Your task to perform on an android device: open app "eBay: The shopping marketplace" Image 0: 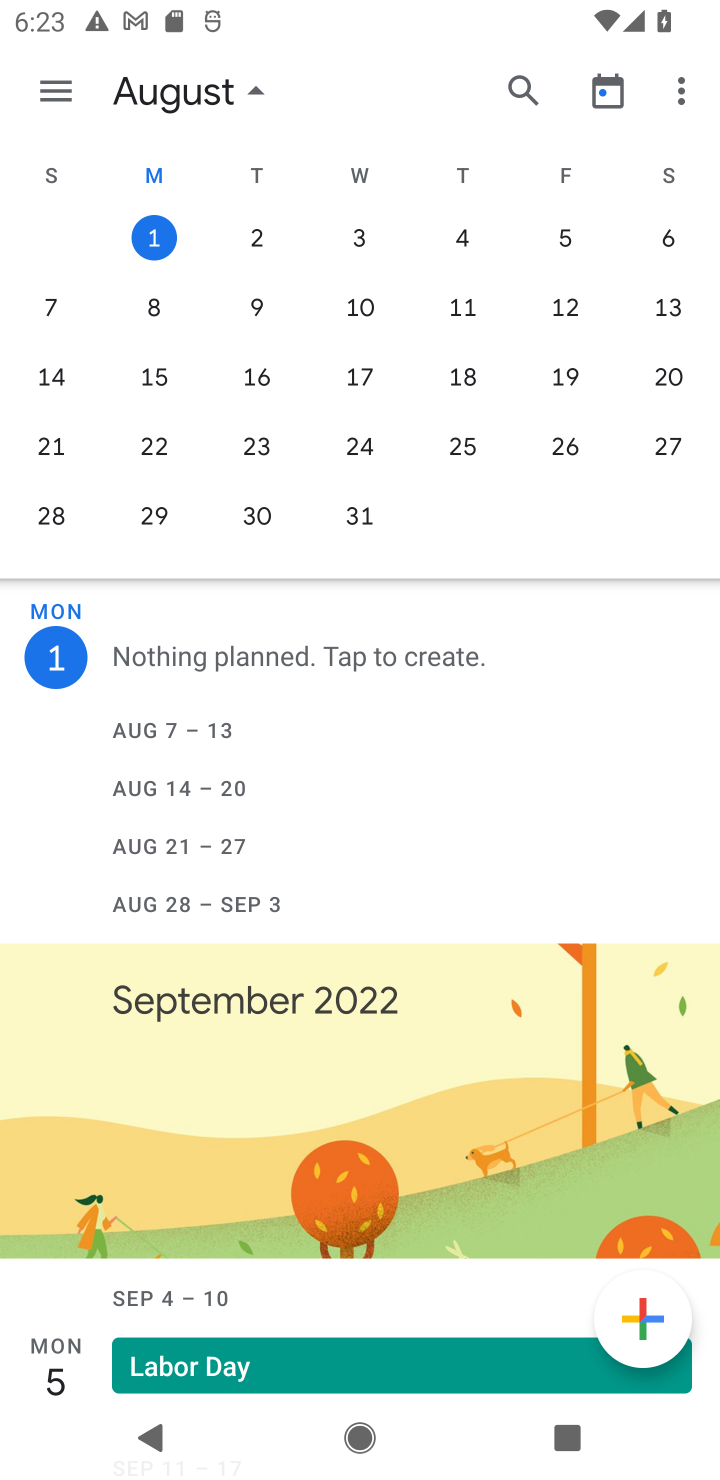
Step 0: press home button
Your task to perform on an android device: open app "eBay: The shopping marketplace" Image 1: 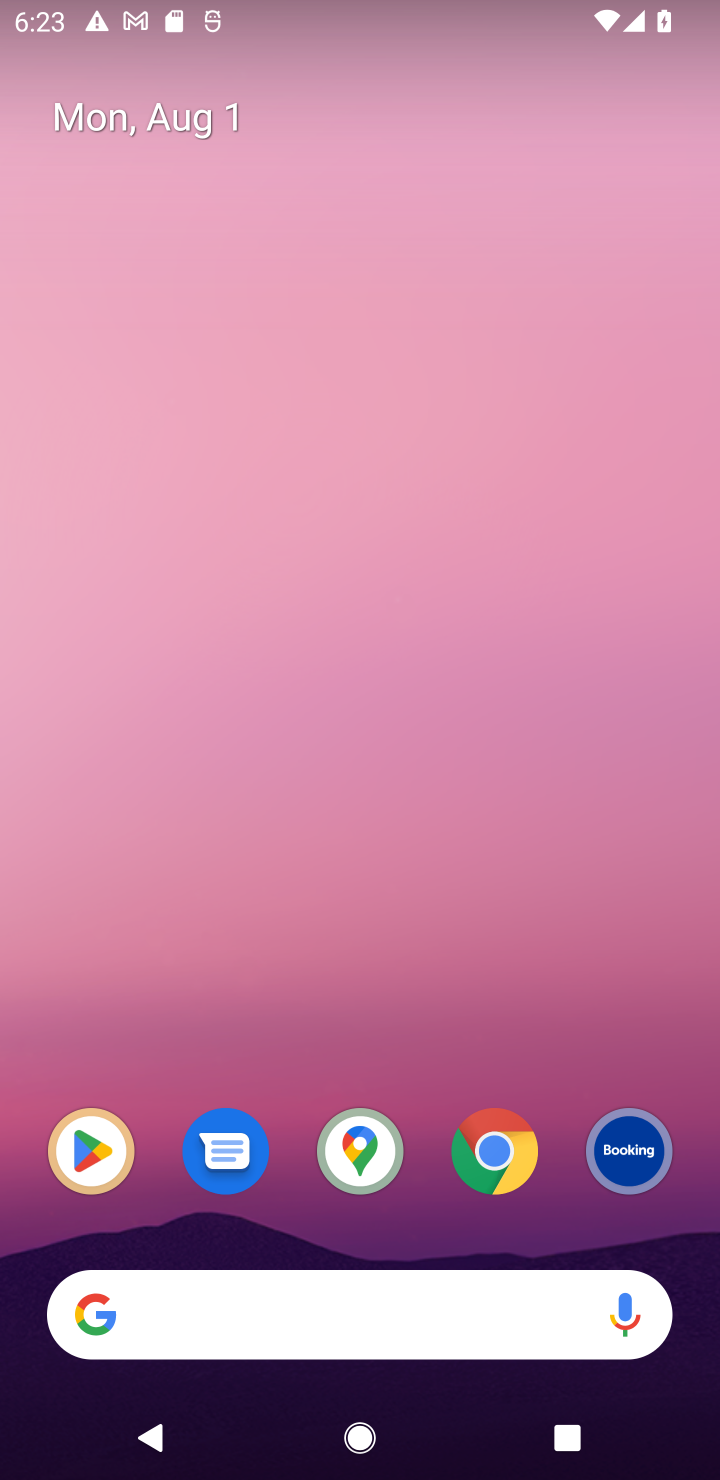
Step 1: drag from (348, 1301) to (366, 1162)
Your task to perform on an android device: open app "eBay: The shopping marketplace" Image 2: 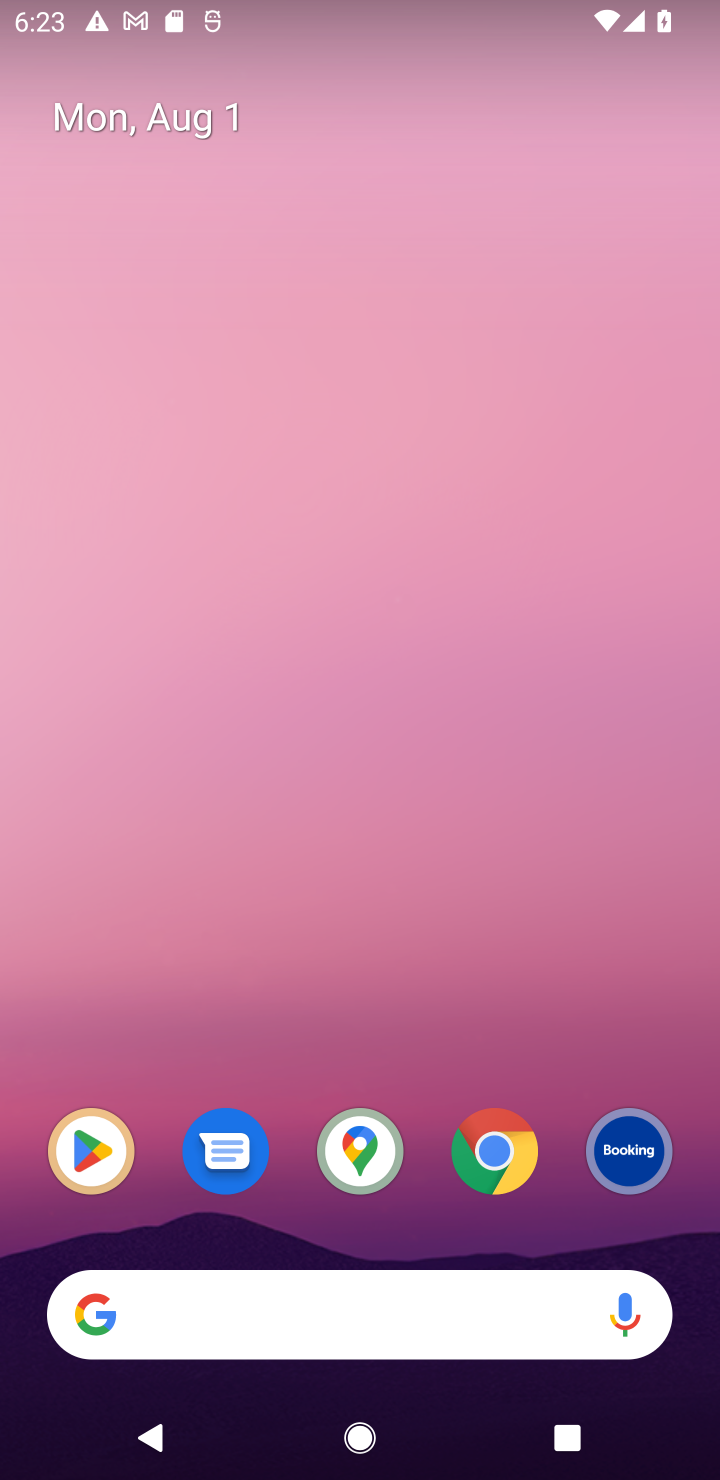
Step 2: drag from (300, 1268) to (632, 66)
Your task to perform on an android device: open app "eBay: The shopping marketplace" Image 3: 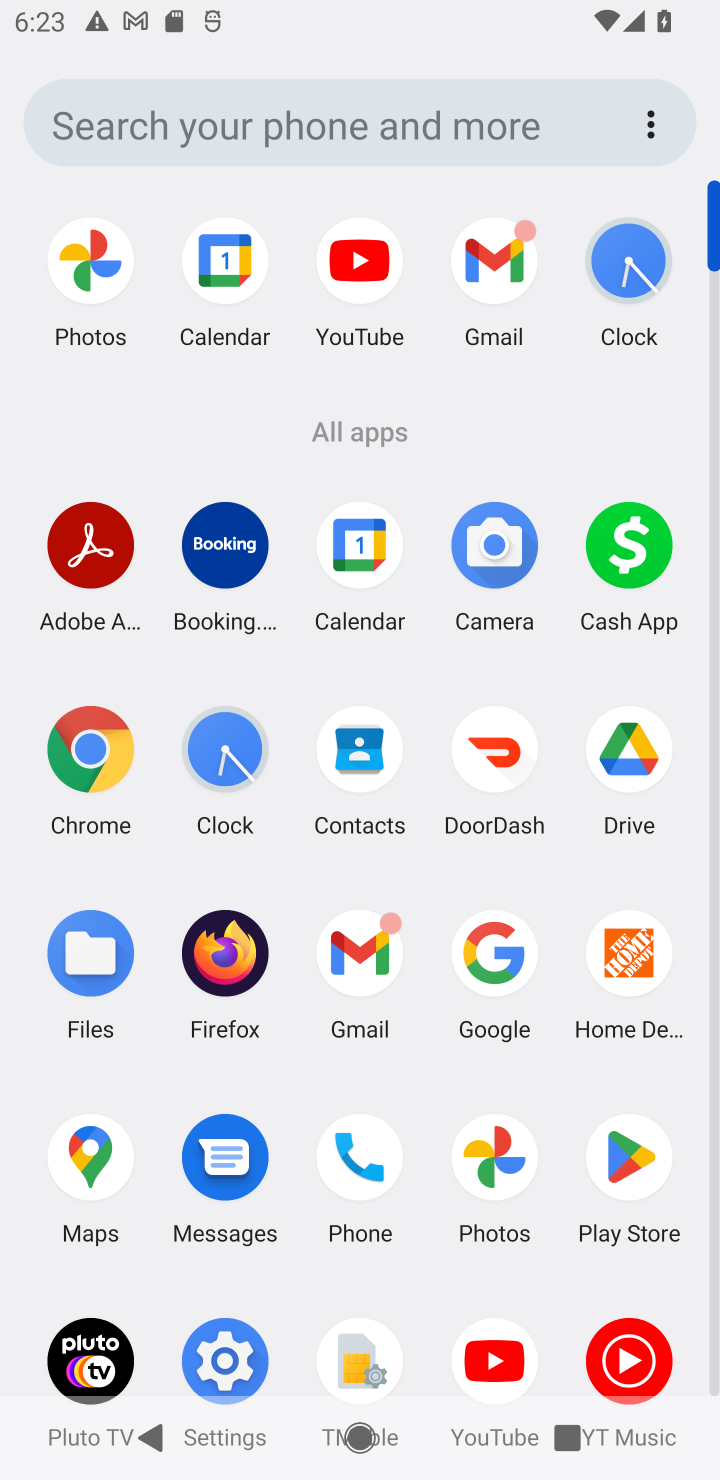
Step 3: click (638, 1141)
Your task to perform on an android device: open app "eBay: The shopping marketplace" Image 4: 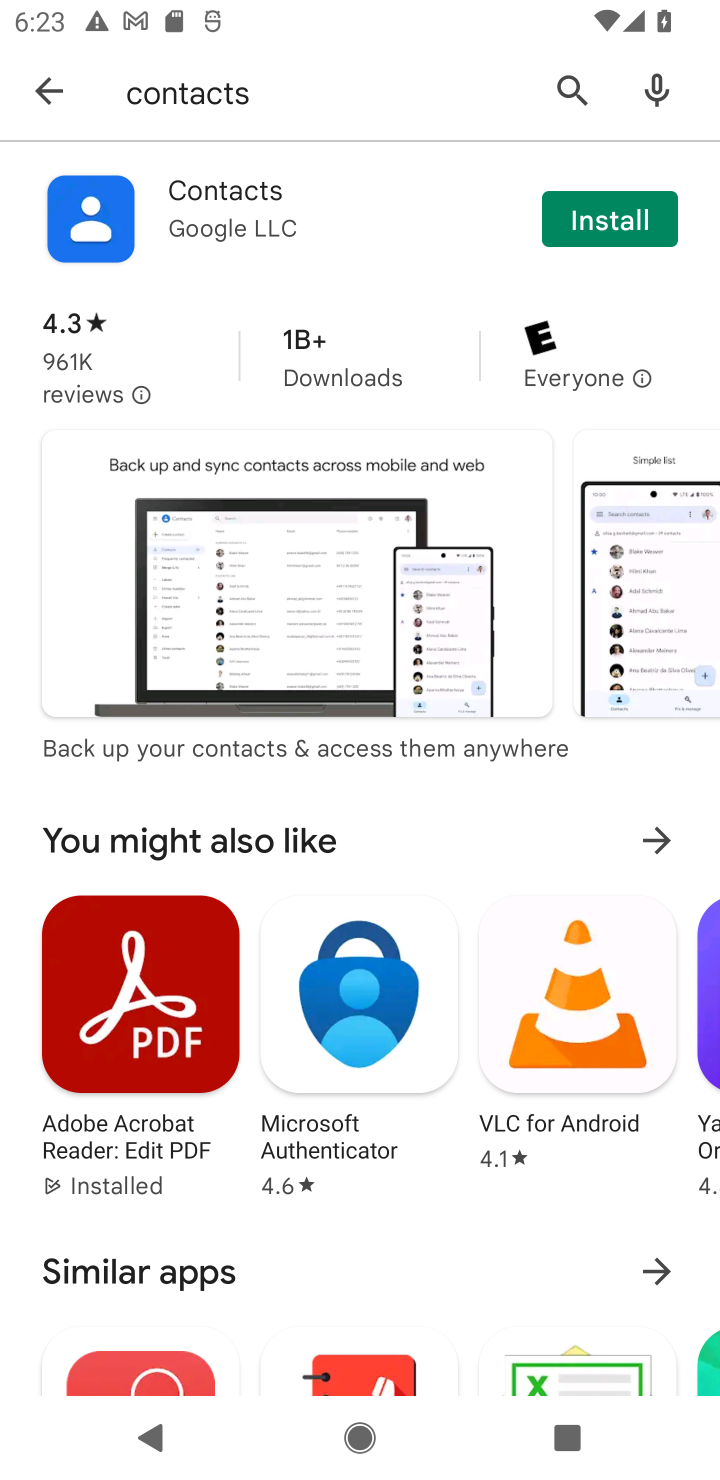
Step 4: click (554, 74)
Your task to perform on an android device: open app "eBay: The shopping marketplace" Image 5: 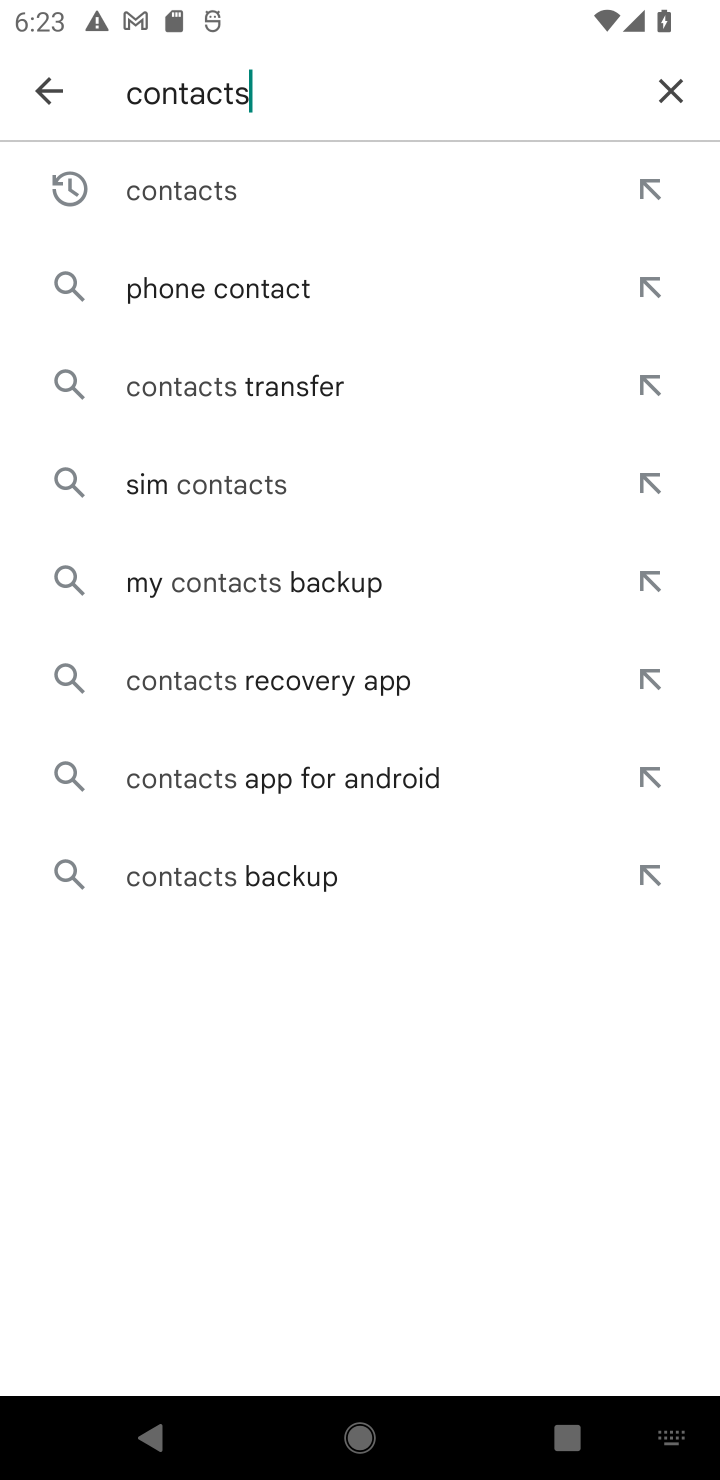
Step 5: click (661, 85)
Your task to perform on an android device: open app "eBay: The shopping marketplace" Image 6: 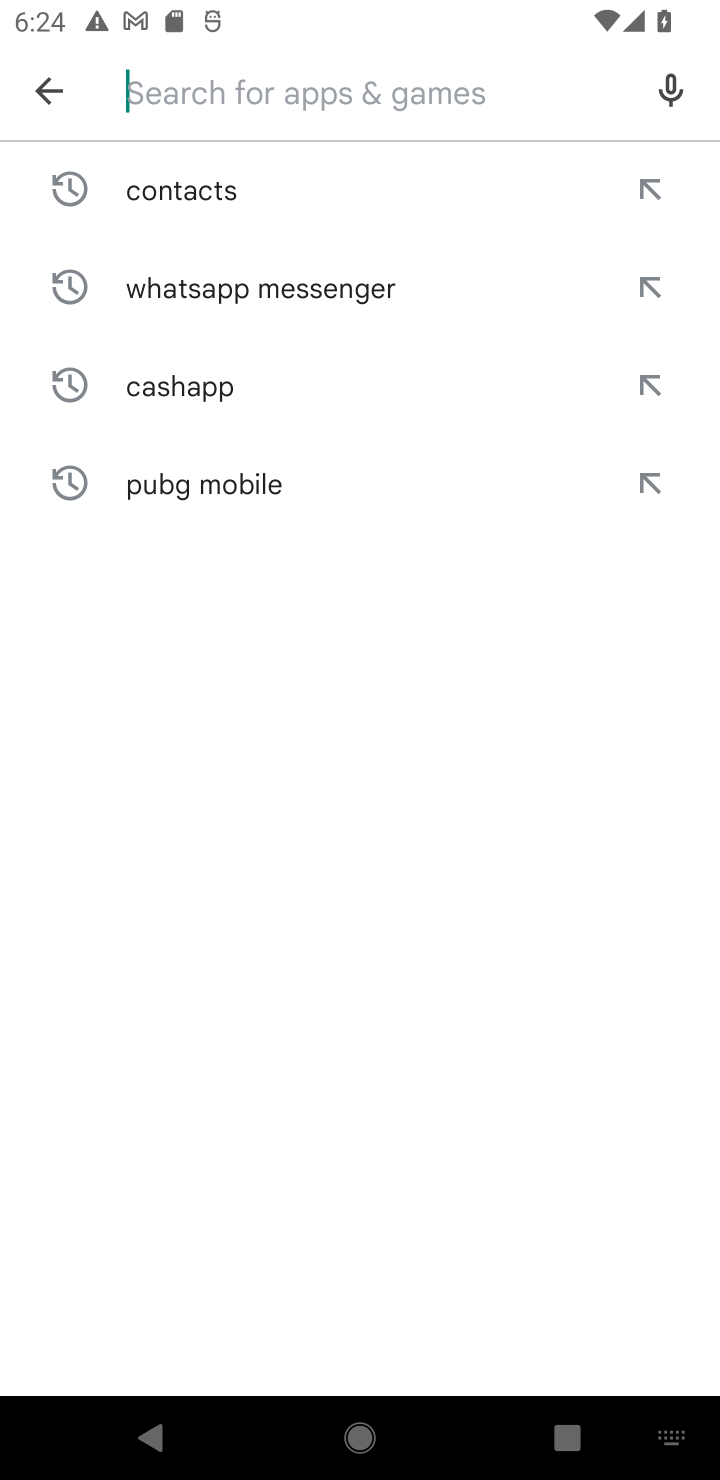
Step 6: type "ebay"
Your task to perform on an android device: open app "eBay: The shopping marketplace" Image 7: 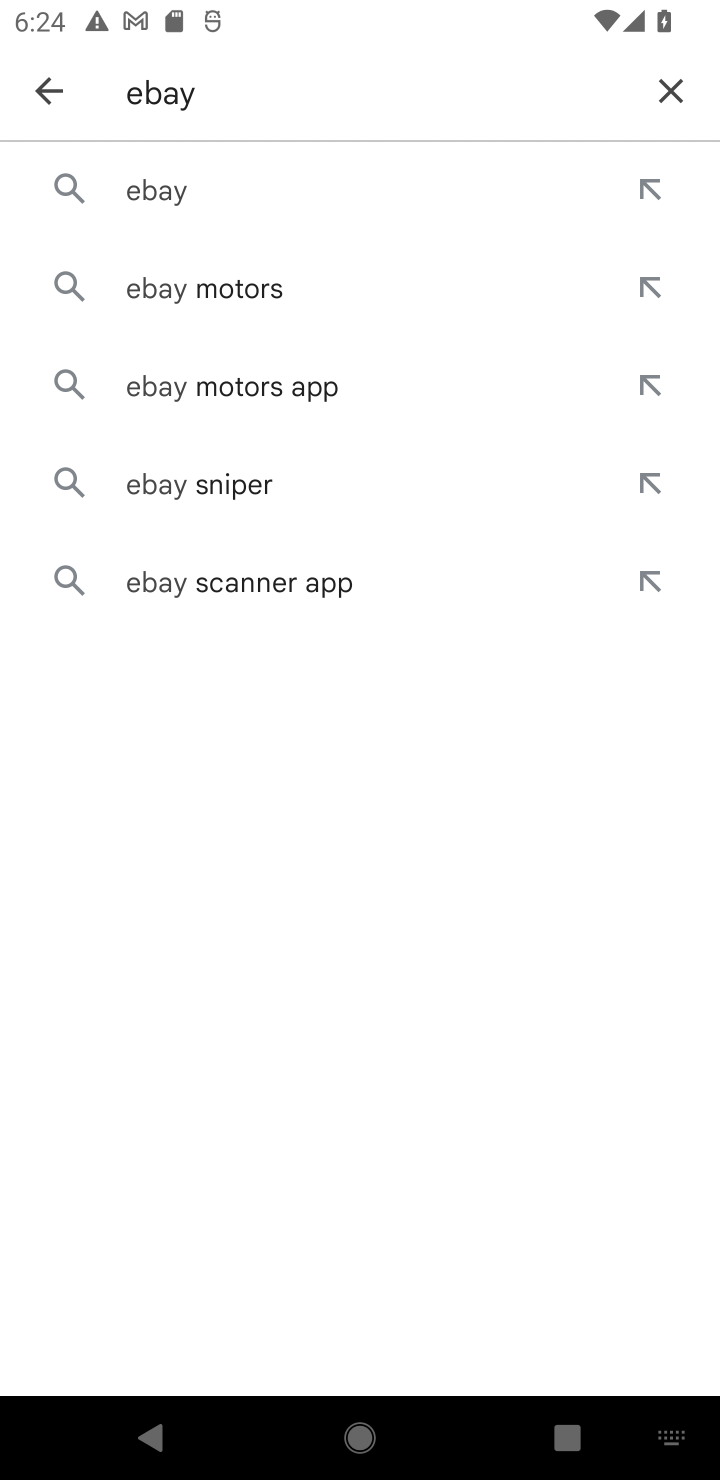
Step 7: click (104, 209)
Your task to perform on an android device: open app "eBay: The shopping marketplace" Image 8: 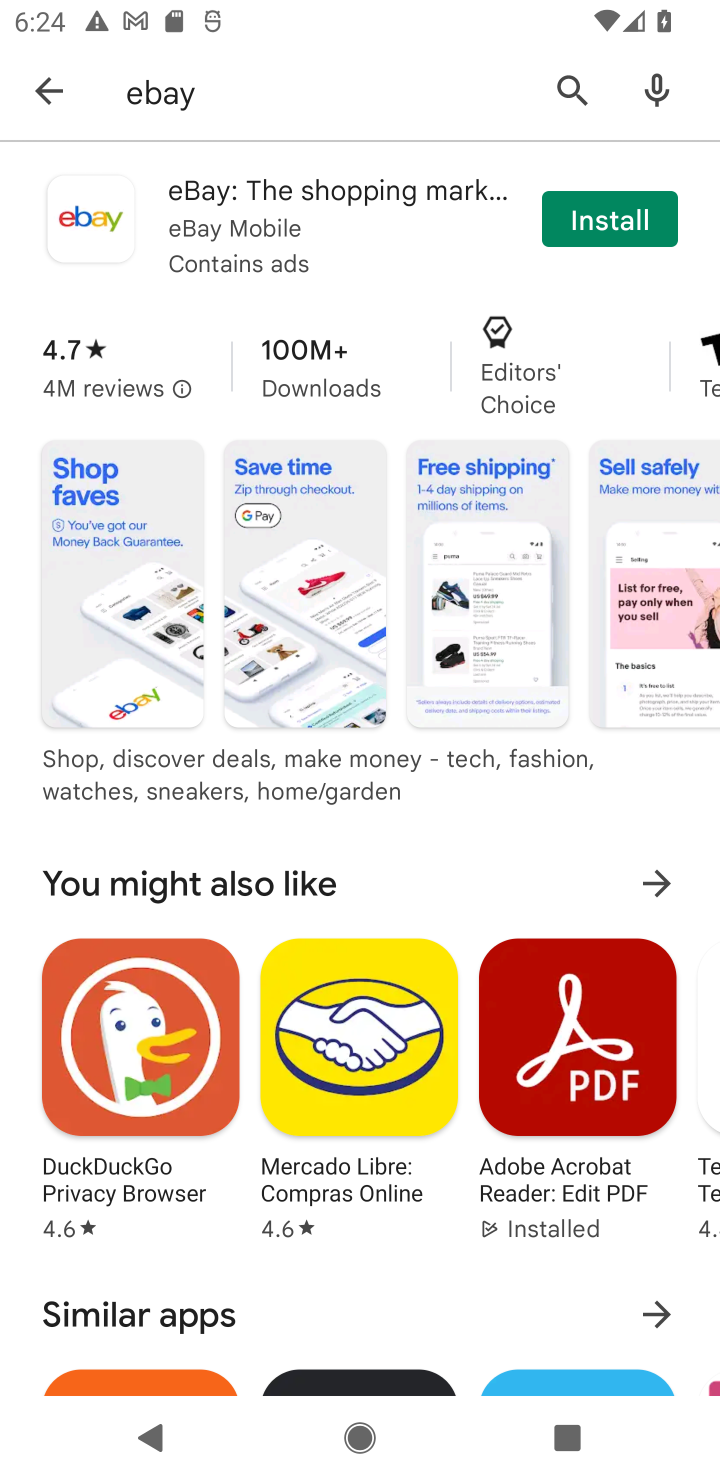
Step 8: task complete